Your task to perform on an android device: change the clock display to analog Image 0: 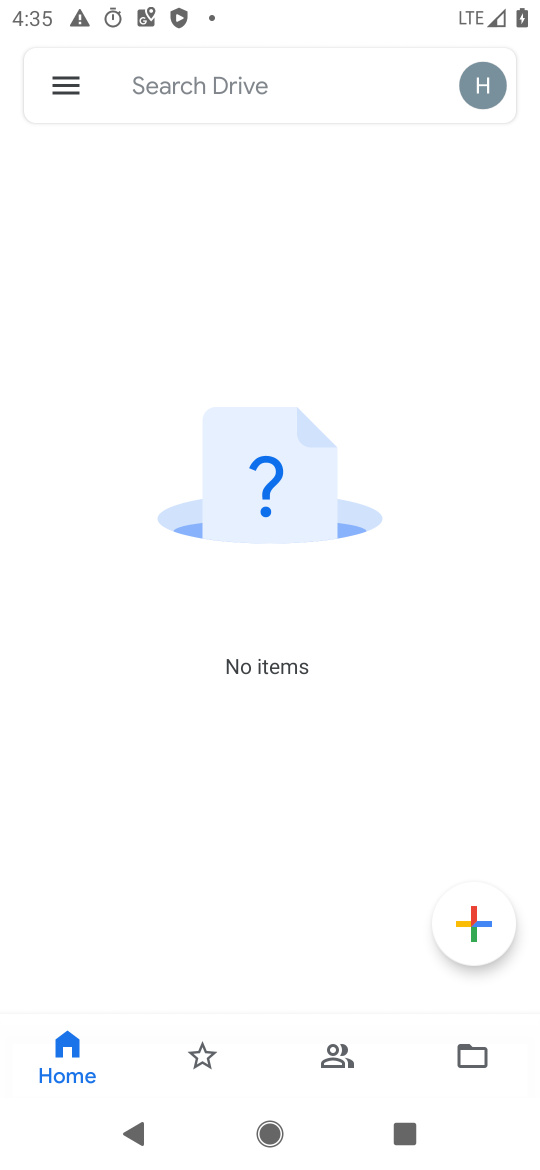
Step 0: press home button
Your task to perform on an android device: change the clock display to analog Image 1: 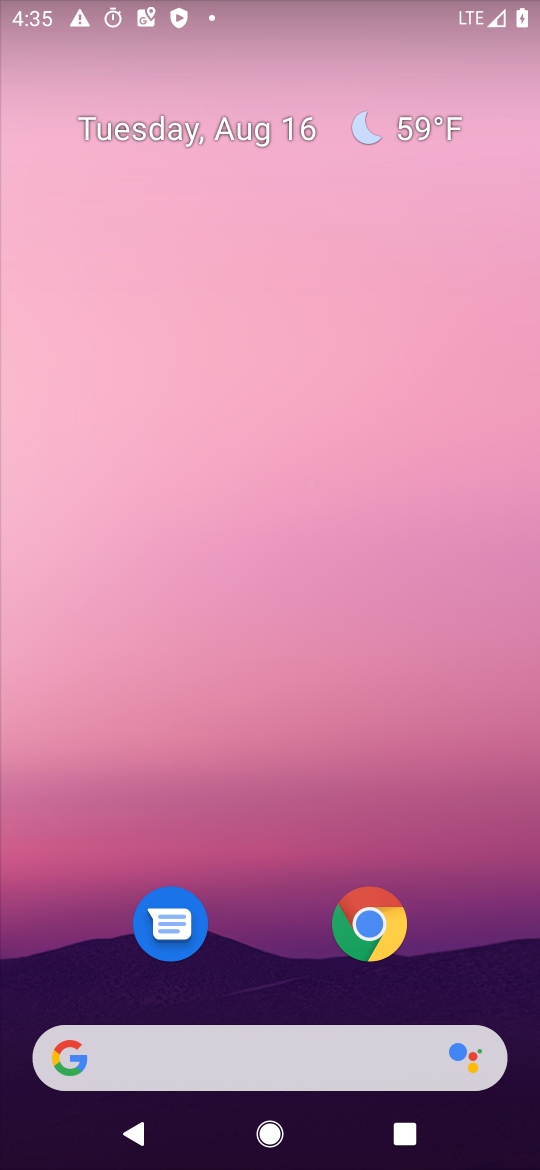
Step 1: drag from (234, 885) to (249, 238)
Your task to perform on an android device: change the clock display to analog Image 2: 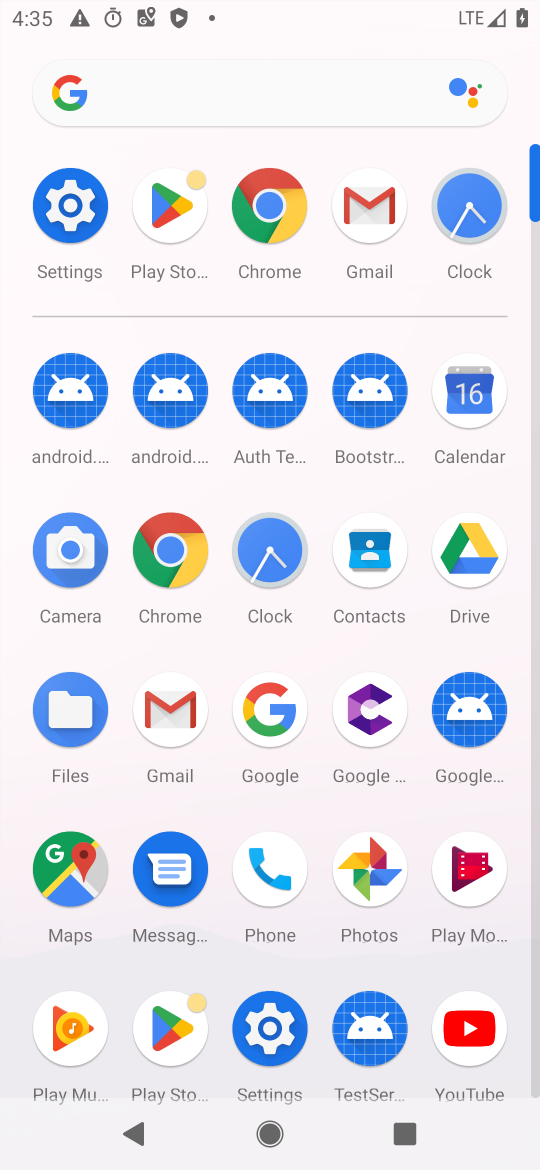
Step 2: click (479, 190)
Your task to perform on an android device: change the clock display to analog Image 3: 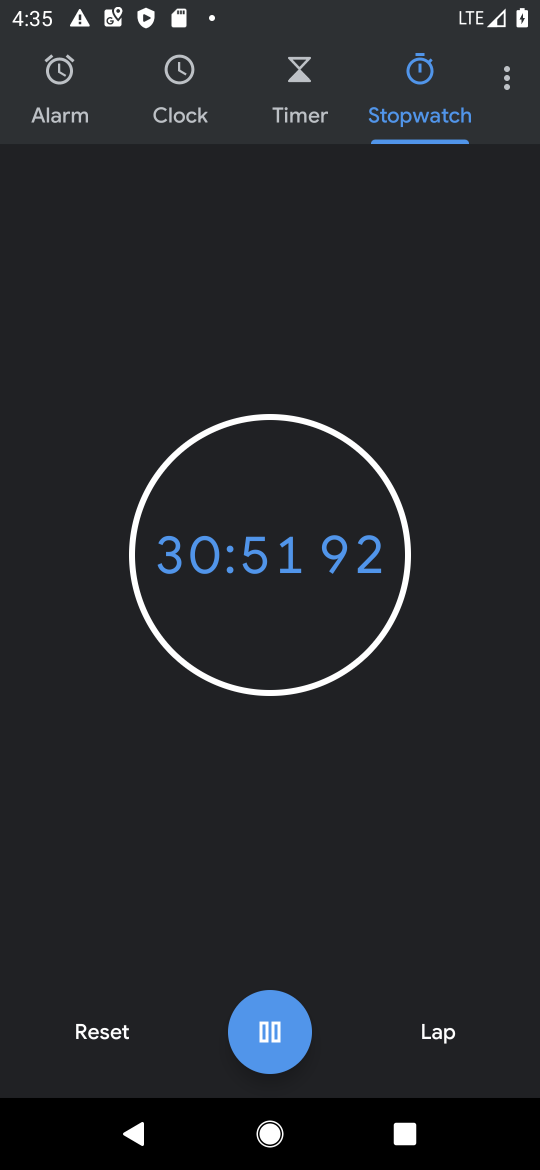
Step 3: click (515, 73)
Your task to perform on an android device: change the clock display to analog Image 4: 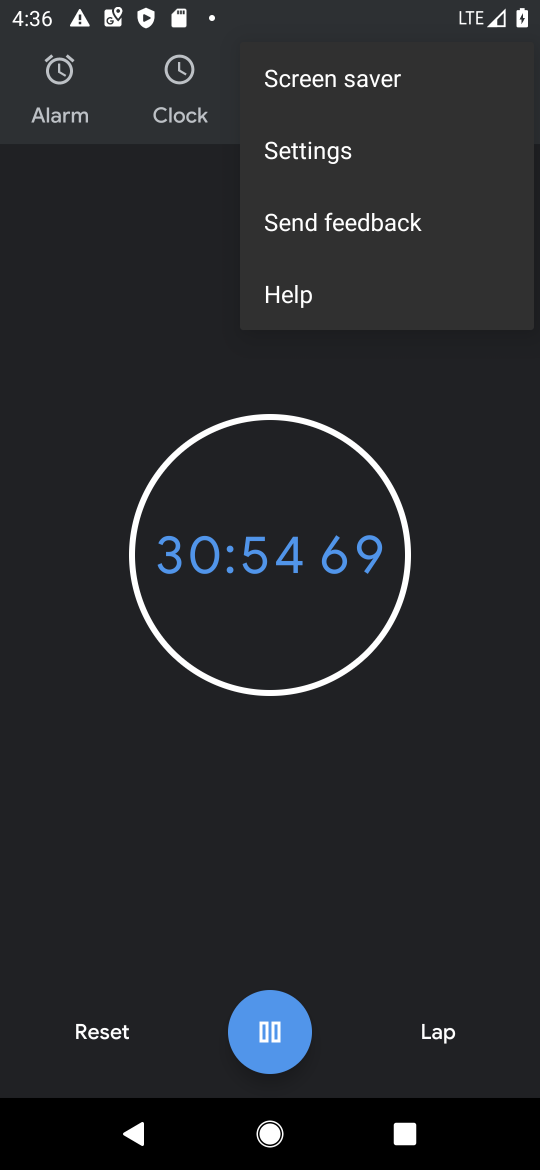
Step 4: click (392, 154)
Your task to perform on an android device: change the clock display to analog Image 5: 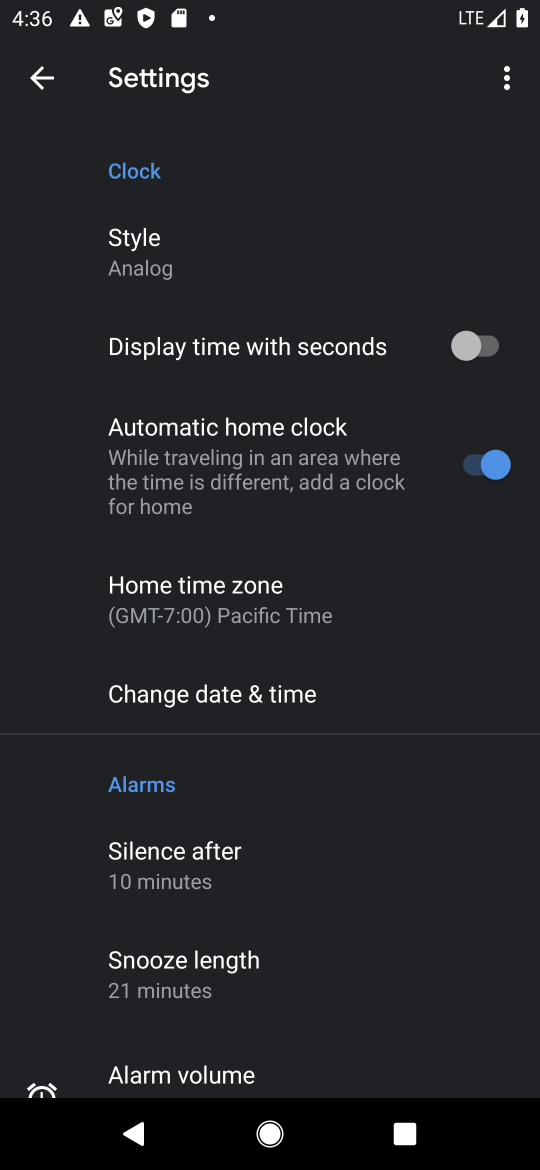
Step 5: task complete